Your task to perform on an android device: change the clock style Image 0: 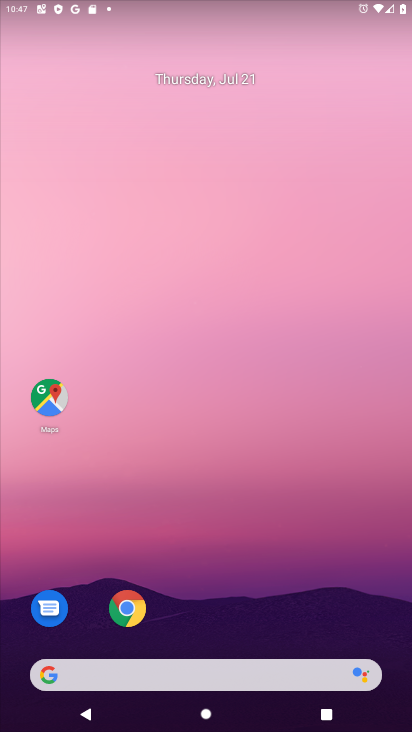
Step 0: drag from (352, 579) to (287, 7)
Your task to perform on an android device: change the clock style Image 1: 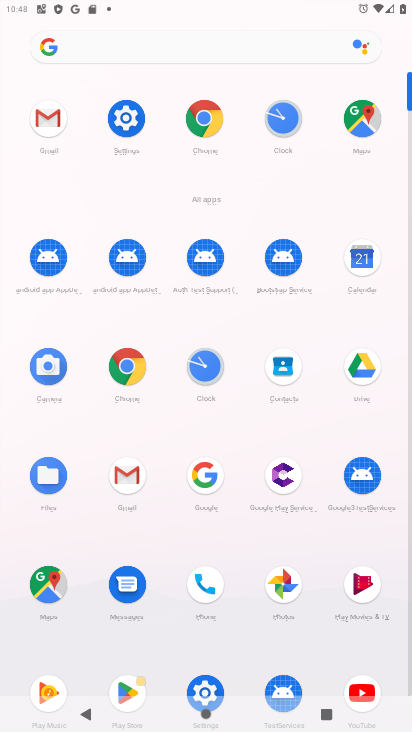
Step 1: click (210, 373)
Your task to perform on an android device: change the clock style Image 2: 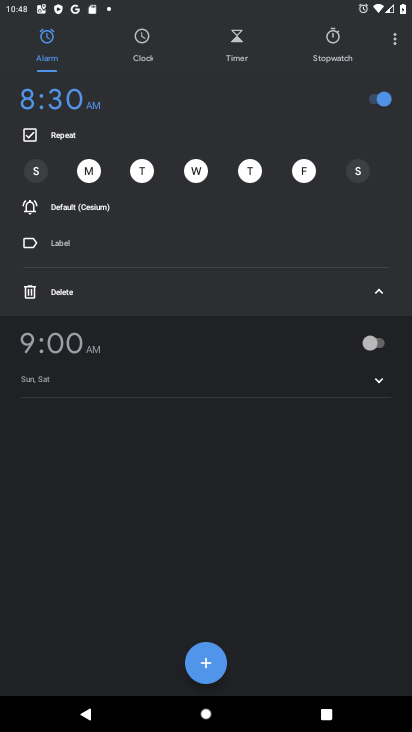
Step 2: click (391, 40)
Your task to perform on an android device: change the clock style Image 3: 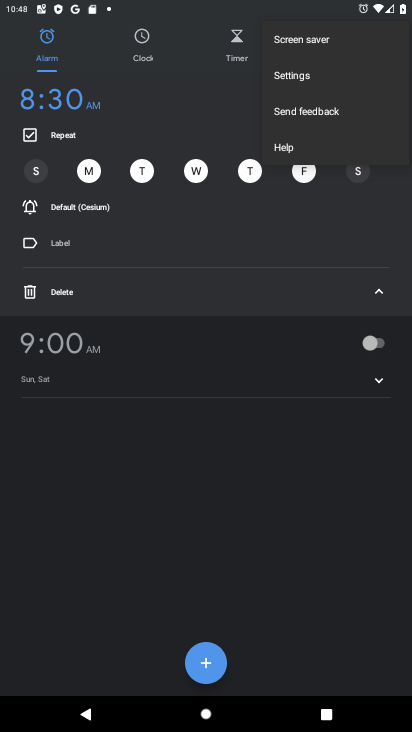
Step 3: click (302, 79)
Your task to perform on an android device: change the clock style Image 4: 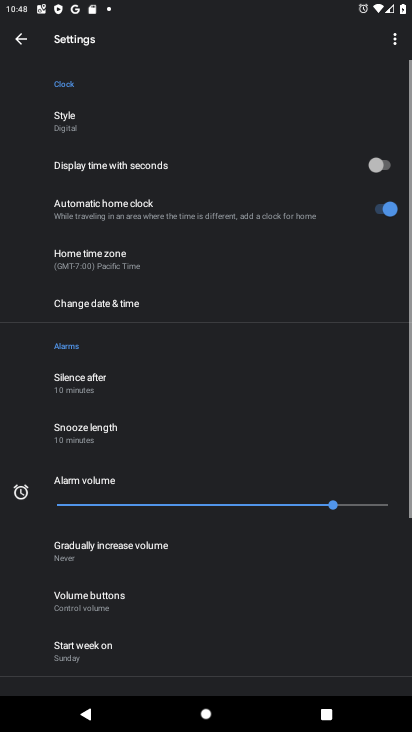
Step 4: click (58, 112)
Your task to perform on an android device: change the clock style Image 5: 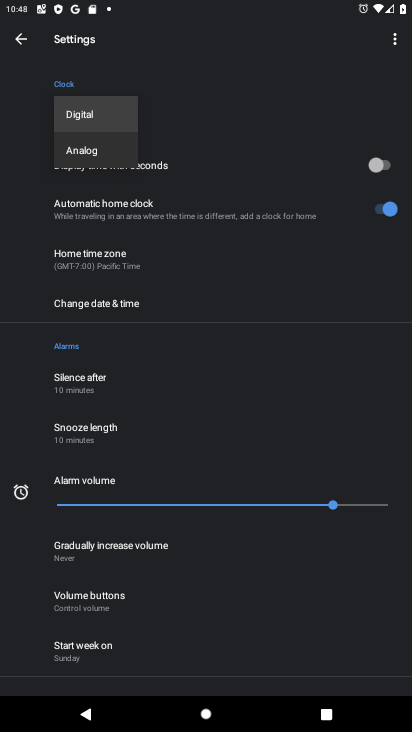
Step 5: click (96, 146)
Your task to perform on an android device: change the clock style Image 6: 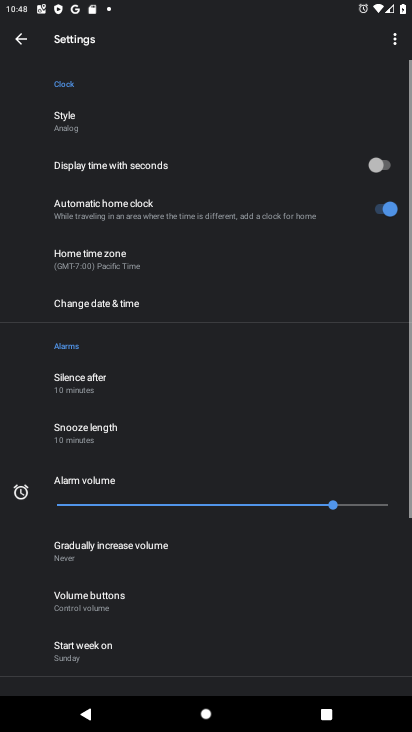
Step 6: task complete